Your task to perform on an android device: Go to wifi settings Image 0: 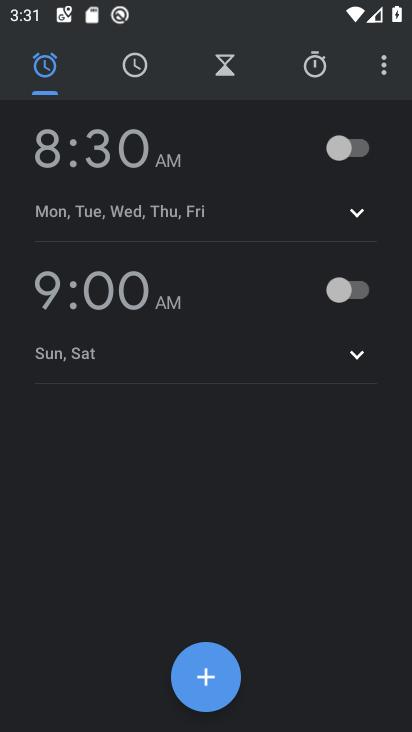
Step 0: press home button
Your task to perform on an android device: Go to wifi settings Image 1: 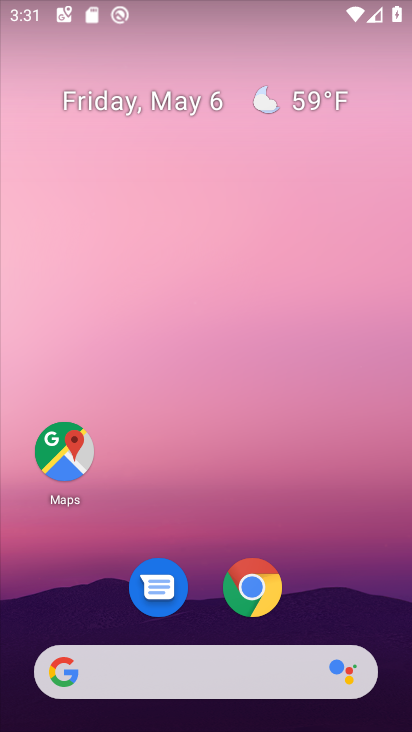
Step 1: drag from (289, 429) to (301, 44)
Your task to perform on an android device: Go to wifi settings Image 2: 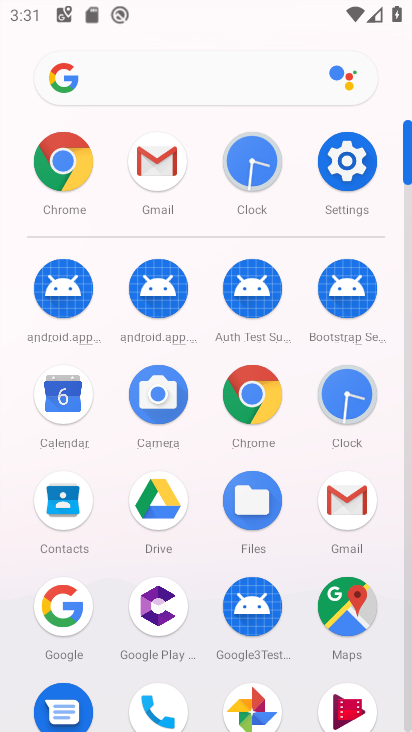
Step 2: click (344, 152)
Your task to perform on an android device: Go to wifi settings Image 3: 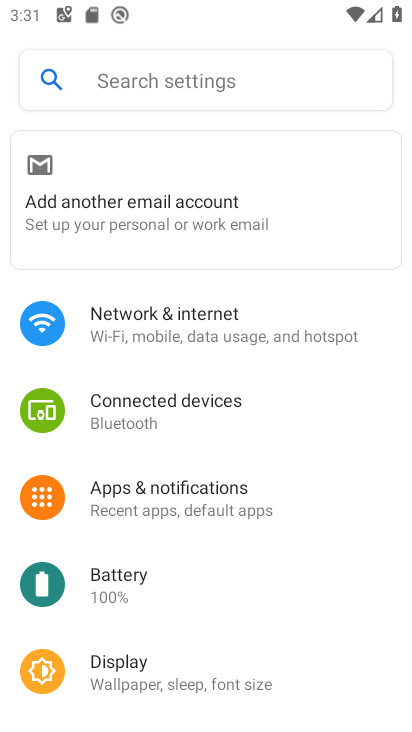
Step 3: click (182, 317)
Your task to perform on an android device: Go to wifi settings Image 4: 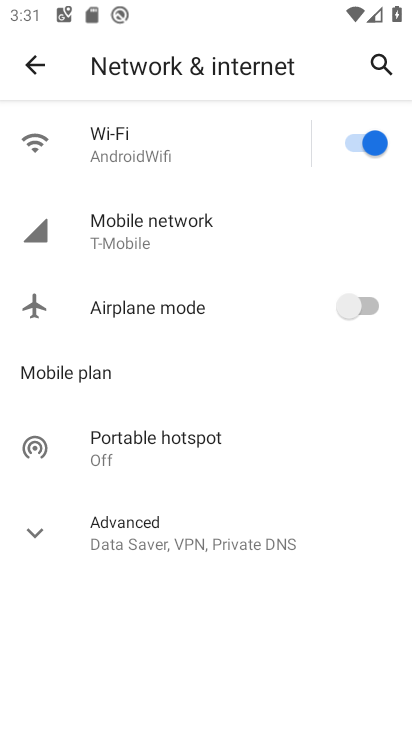
Step 4: click (159, 141)
Your task to perform on an android device: Go to wifi settings Image 5: 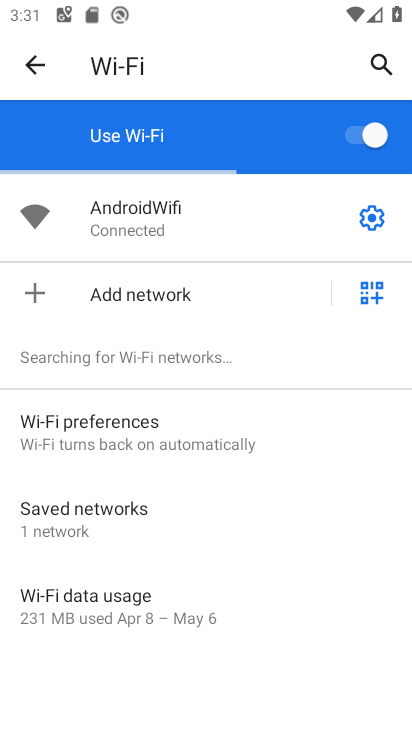
Step 5: task complete